Your task to perform on an android device: open app "NewsBreak: Local News & Alerts" (install if not already installed) Image 0: 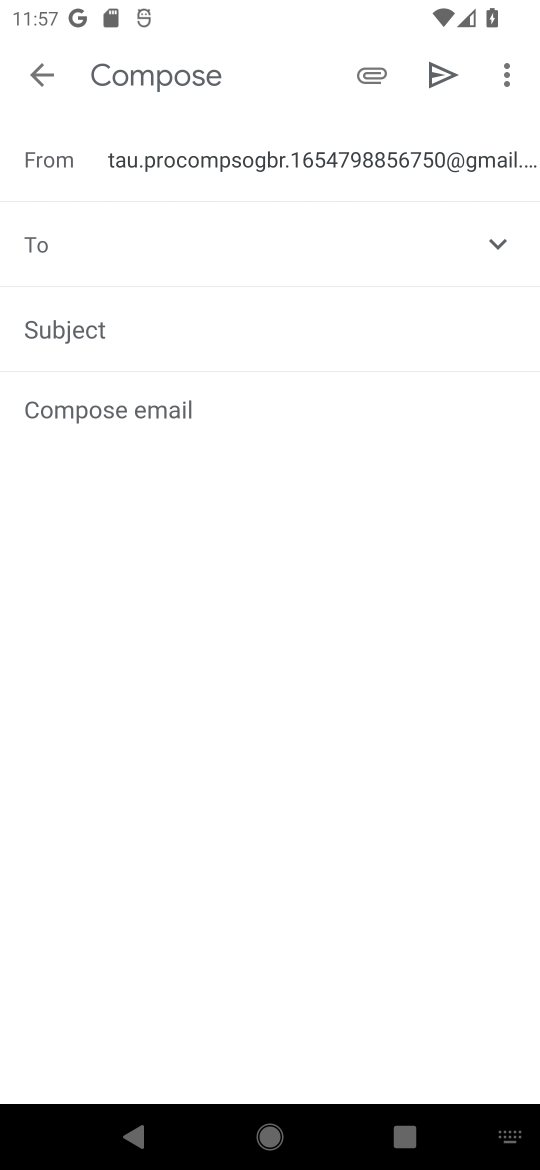
Step 0: press back button
Your task to perform on an android device: open app "NewsBreak: Local News & Alerts" (install if not already installed) Image 1: 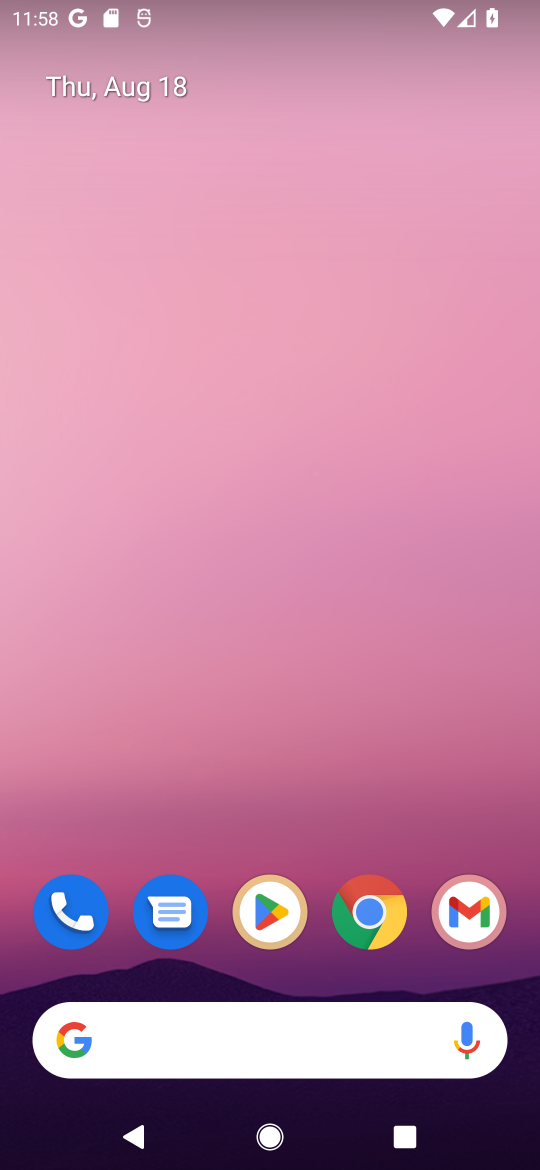
Step 1: click (270, 888)
Your task to perform on an android device: open app "NewsBreak: Local News & Alerts" (install if not already installed) Image 2: 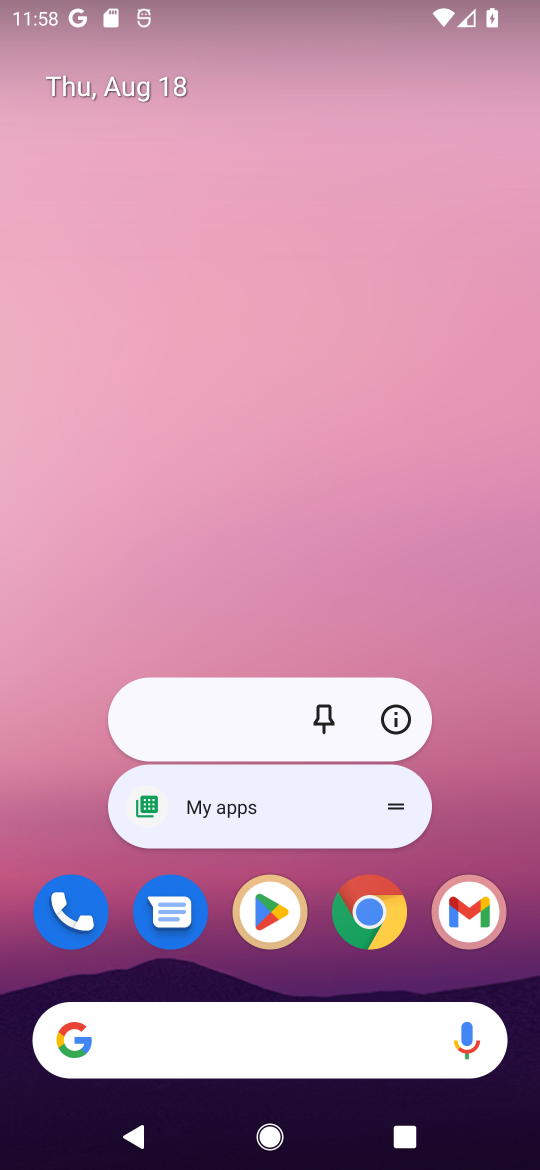
Step 2: click (270, 915)
Your task to perform on an android device: open app "NewsBreak: Local News & Alerts" (install if not already installed) Image 3: 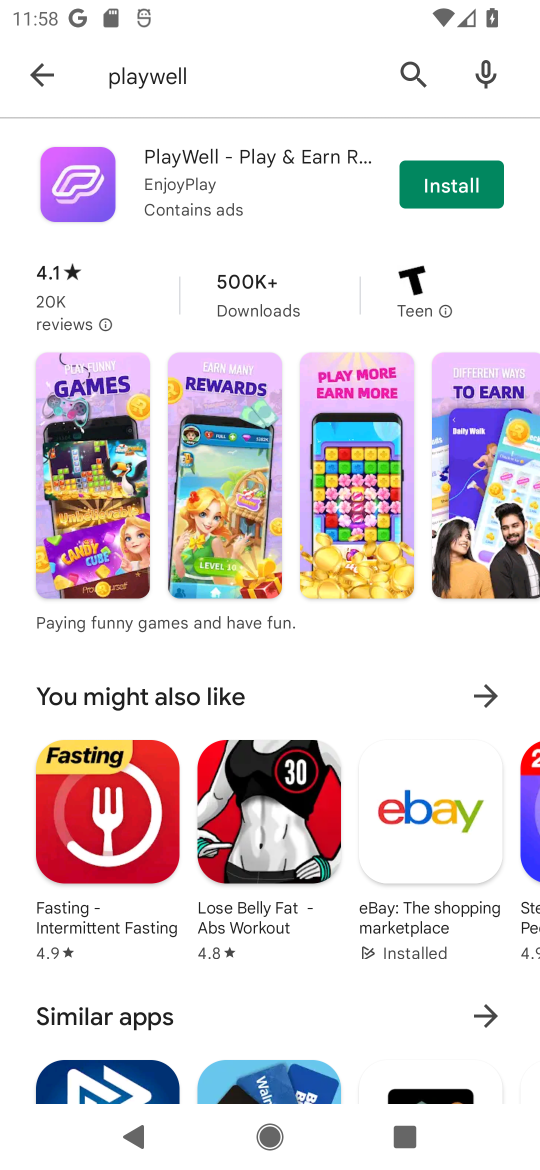
Step 3: click (409, 69)
Your task to perform on an android device: open app "NewsBreak: Local News & Alerts" (install if not already installed) Image 4: 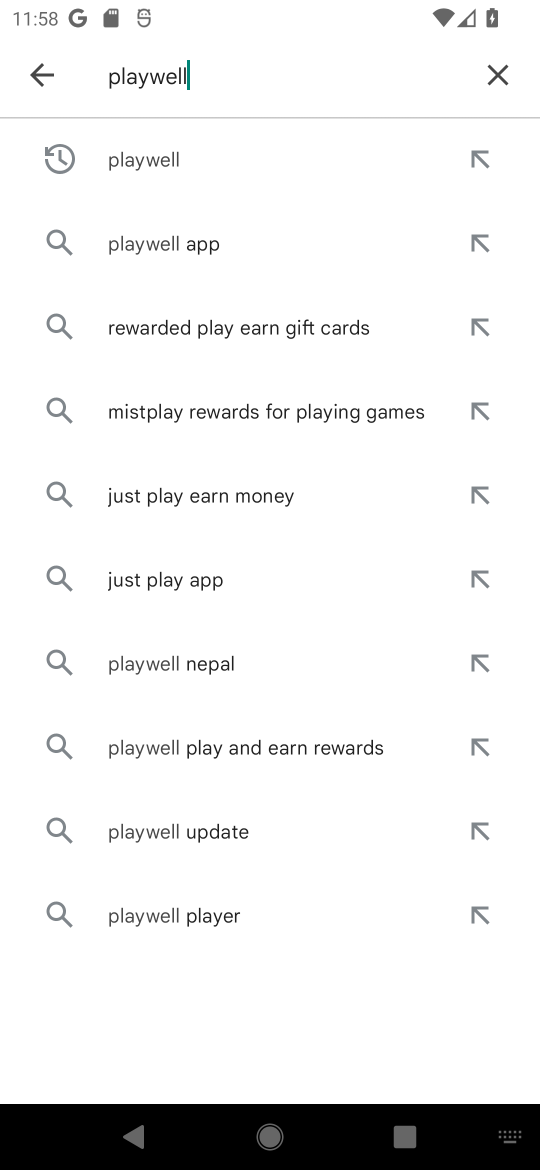
Step 4: click (481, 78)
Your task to perform on an android device: open app "NewsBreak: Local News & Alerts" (install if not already installed) Image 5: 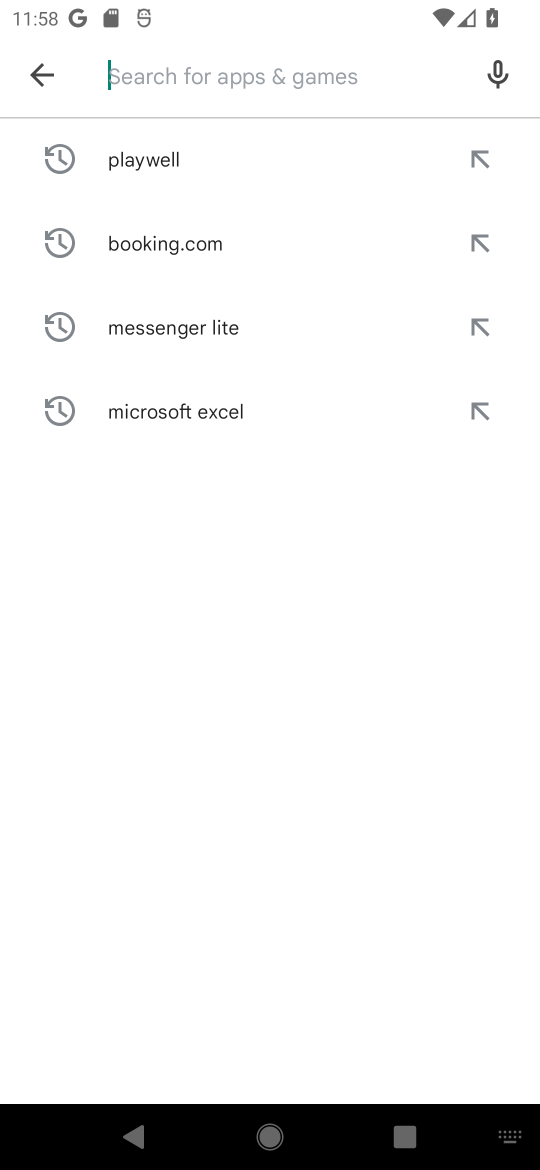
Step 5: click (185, 71)
Your task to perform on an android device: open app "NewsBreak: Local News & Alerts" (install if not already installed) Image 6: 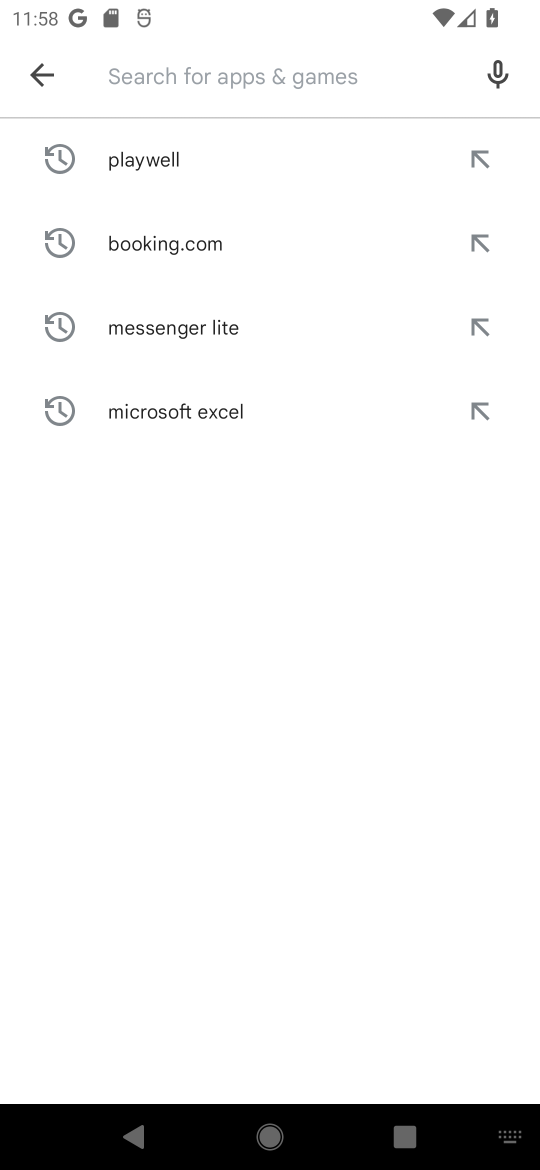
Step 6: type "NewsBreak"
Your task to perform on an android device: open app "NewsBreak: Local News & Alerts" (install if not already installed) Image 7: 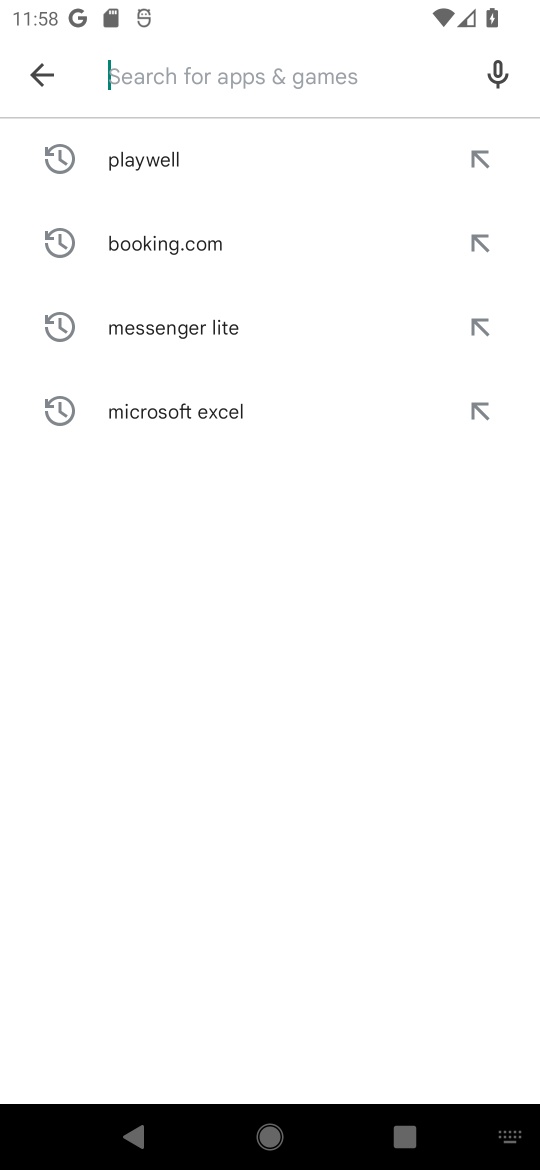
Step 7: click (294, 733)
Your task to perform on an android device: open app "NewsBreak: Local News & Alerts" (install if not already installed) Image 8: 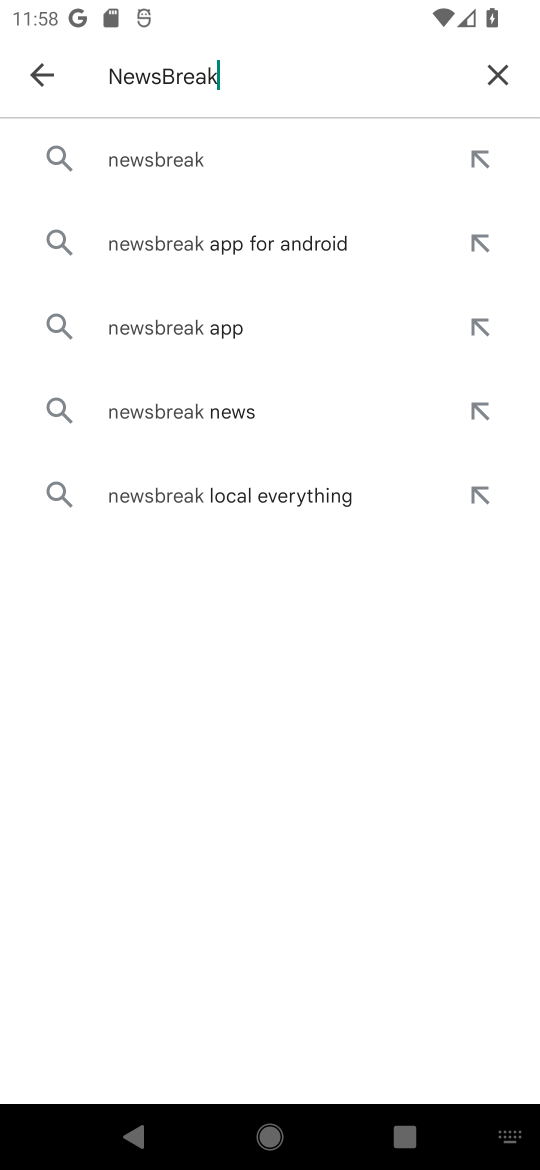
Step 8: click (167, 167)
Your task to perform on an android device: open app "NewsBreak: Local News & Alerts" (install if not already installed) Image 9: 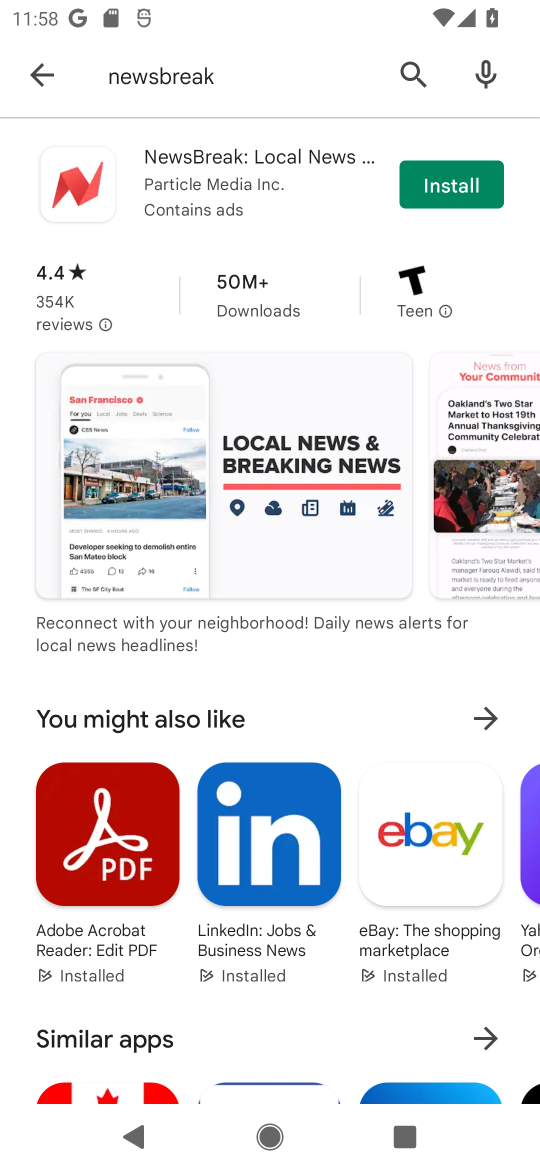
Step 9: click (440, 170)
Your task to perform on an android device: open app "NewsBreak: Local News & Alerts" (install if not already installed) Image 10: 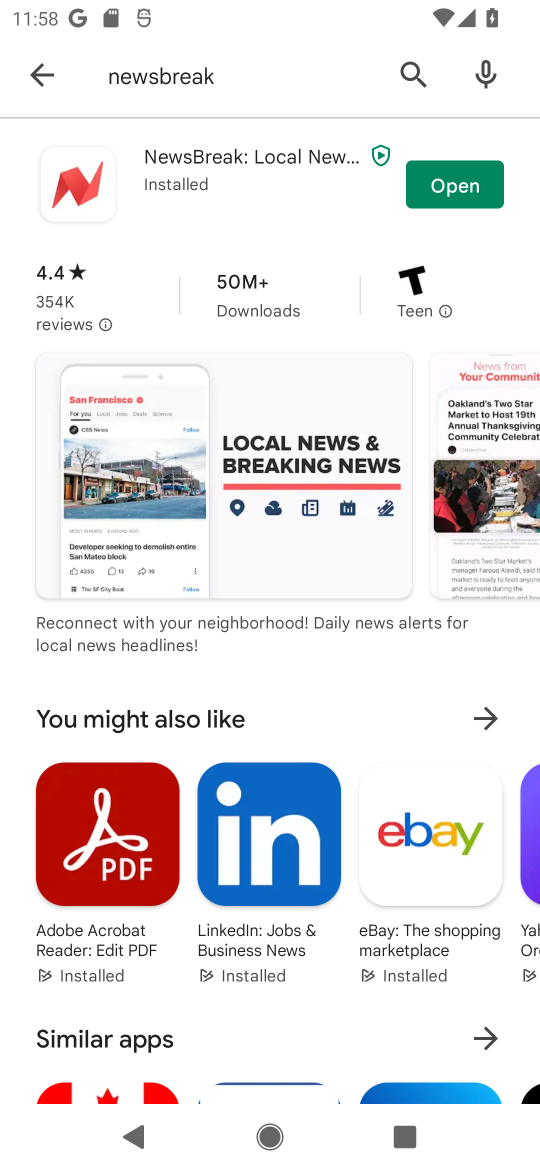
Step 10: click (468, 181)
Your task to perform on an android device: open app "NewsBreak: Local News & Alerts" (install if not already installed) Image 11: 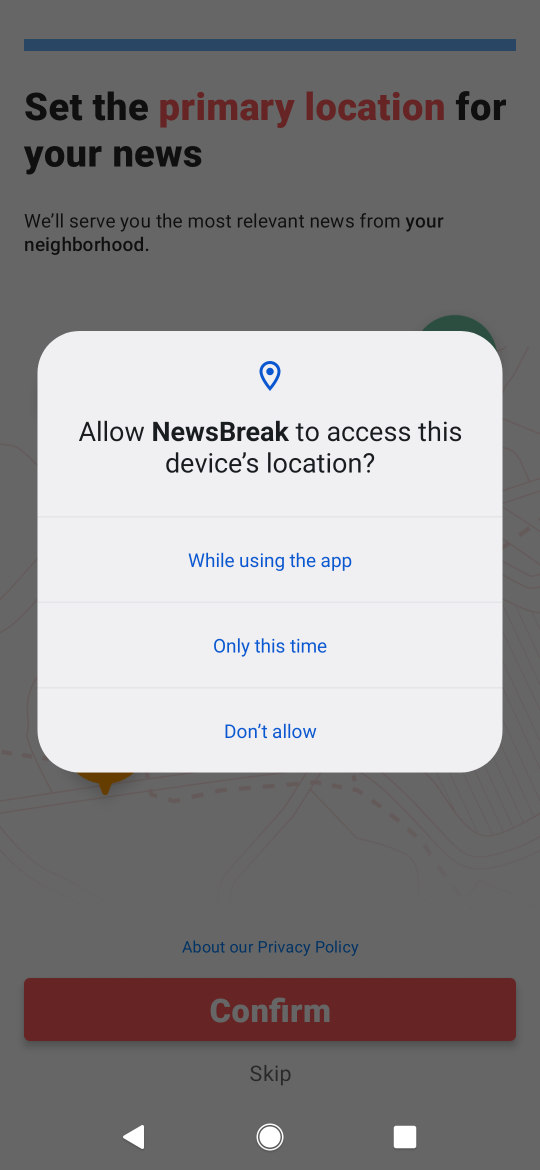
Step 11: task complete